Your task to perform on an android device: turn off notifications settings in the gmail app Image 0: 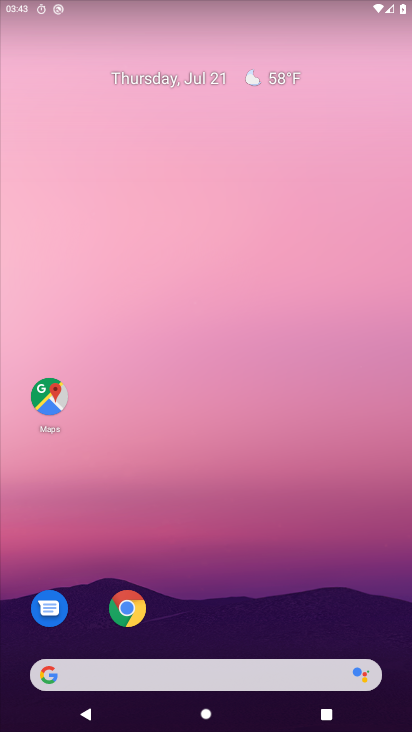
Step 0: drag from (212, 647) to (215, 101)
Your task to perform on an android device: turn off notifications settings in the gmail app Image 1: 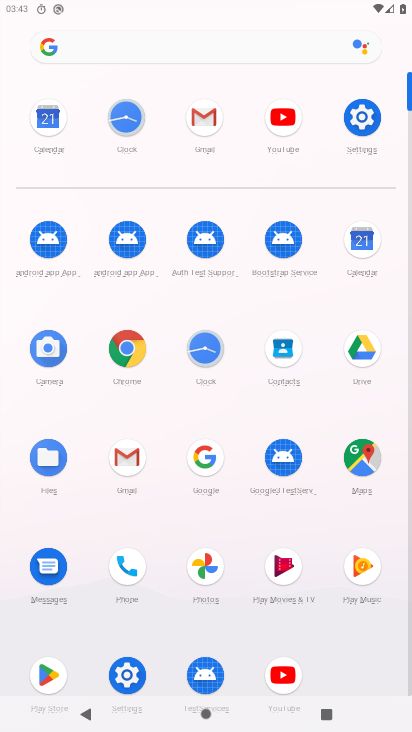
Step 1: drag from (240, 625) to (261, 55)
Your task to perform on an android device: turn off notifications settings in the gmail app Image 2: 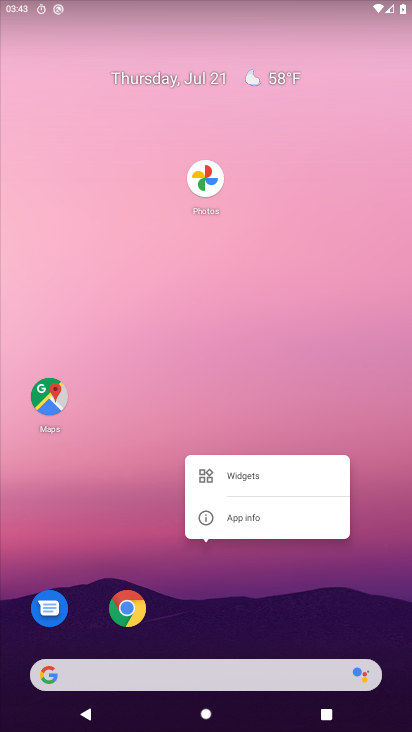
Step 2: click (238, 619)
Your task to perform on an android device: turn off notifications settings in the gmail app Image 3: 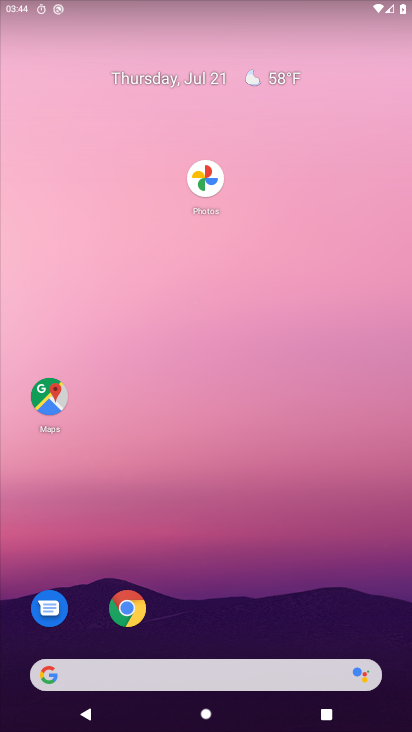
Step 3: drag from (255, 636) to (246, 85)
Your task to perform on an android device: turn off notifications settings in the gmail app Image 4: 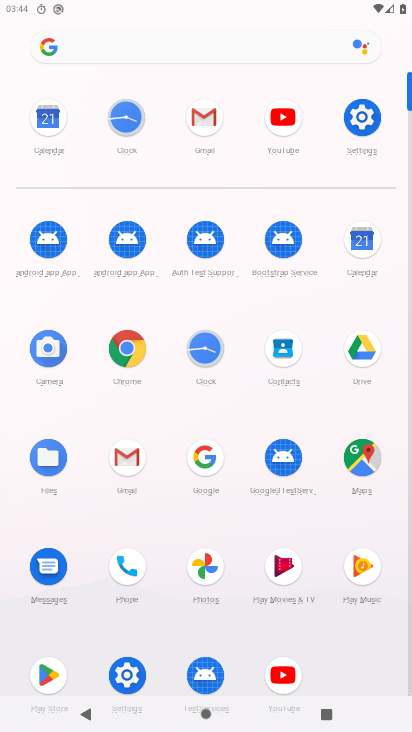
Step 4: click (202, 113)
Your task to perform on an android device: turn off notifications settings in the gmail app Image 5: 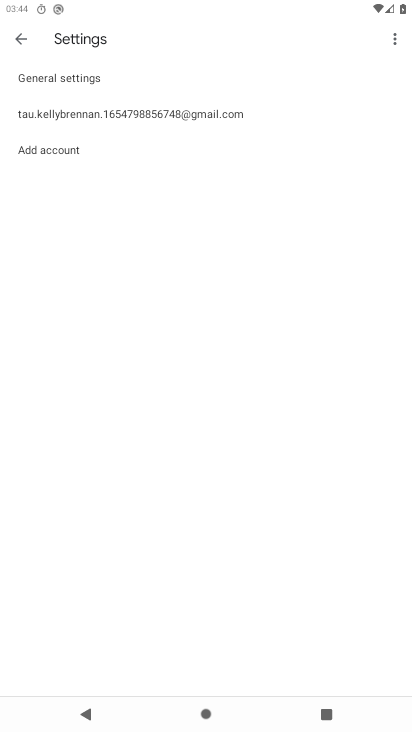
Step 5: click (108, 73)
Your task to perform on an android device: turn off notifications settings in the gmail app Image 6: 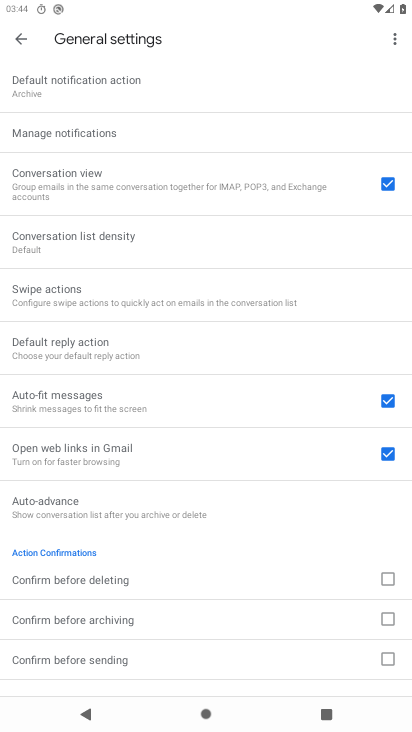
Step 6: click (123, 127)
Your task to perform on an android device: turn off notifications settings in the gmail app Image 7: 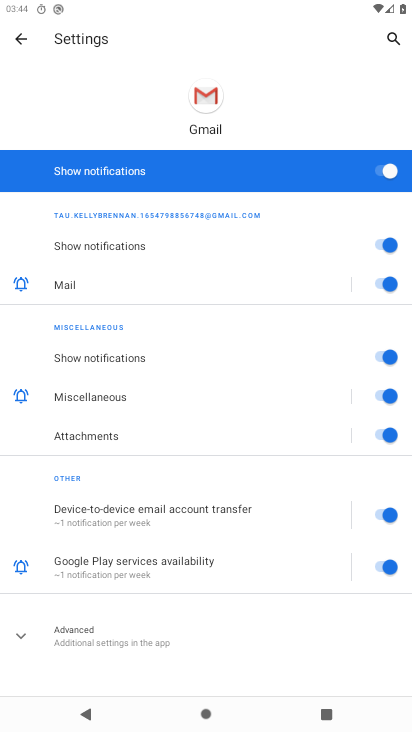
Step 7: click (384, 167)
Your task to perform on an android device: turn off notifications settings in the gmail app Image 8: 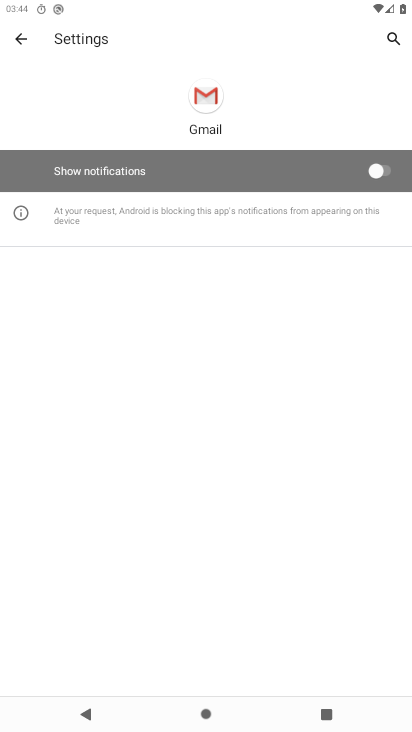
Step 8: task complete